Your task to perform on an android device: Show me productivity apps on the Play Store Image 0: 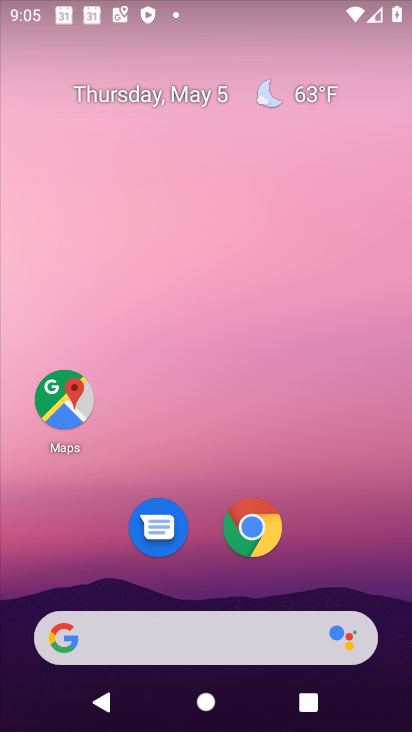
Step 0: drag from (237, 708) to (275, 50)
Your task to perform on an android device: Show me productivity apps on the Play Store Image 1: 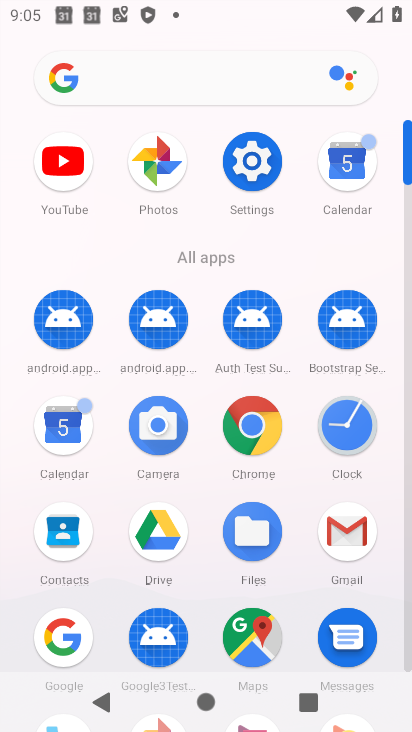
Step 1: drag from (307, 595) to (228, 12)
Your task to perform on an android device: Show me productivity apps on the Play Store Image 2: 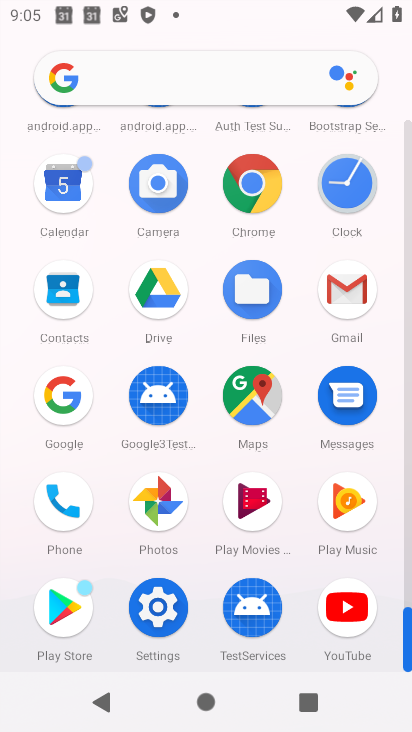
Step 2: click (83, 597)
Your task to perform on an android device: Show me productivity apps on the Play Store Image 3: 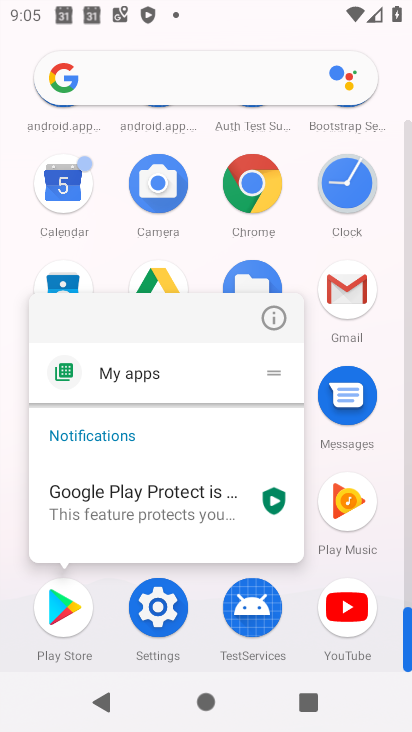
Step 3: click (62, 606)
Your task to perform on an android device: Show me productivity apps on the Play Store Image 4: 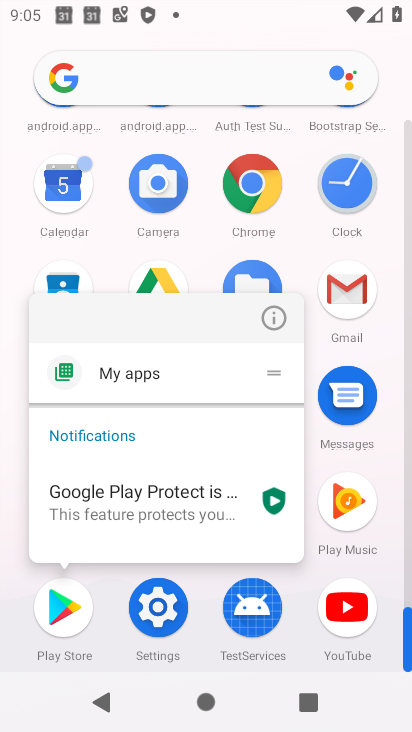
Step 4: click (62, 606)
Your task to perform on an android device: Show me productivity apps on the Play Store Image 5: 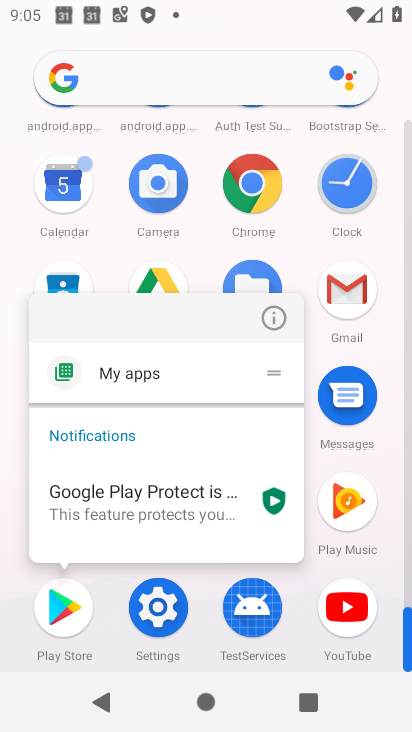
Step 5: click (63, 635)
Your task to perform on an android device: Show me productivity apps on the Play Store Image 6: 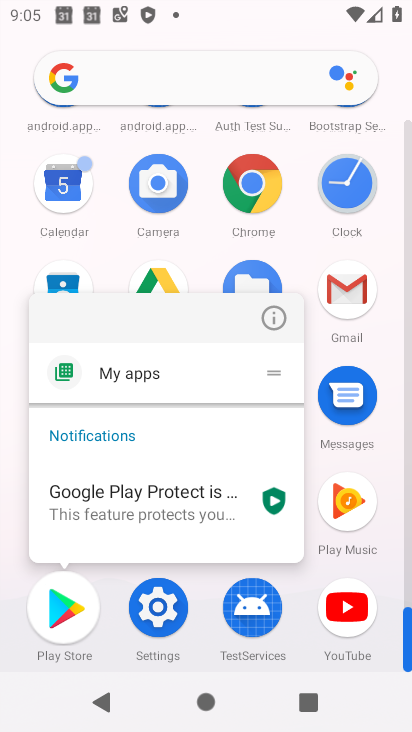
Step 6: click (63, 635)
Your task to perform on an android device: Show me productivity apps on the Play Store Image 7: 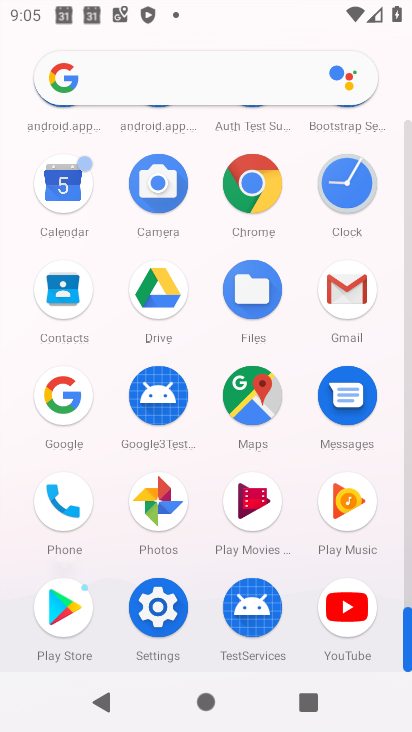
Step 7: click (63, 635)
Your task to perform on an android device: Show me productivity apps on the Play Store Image 8: 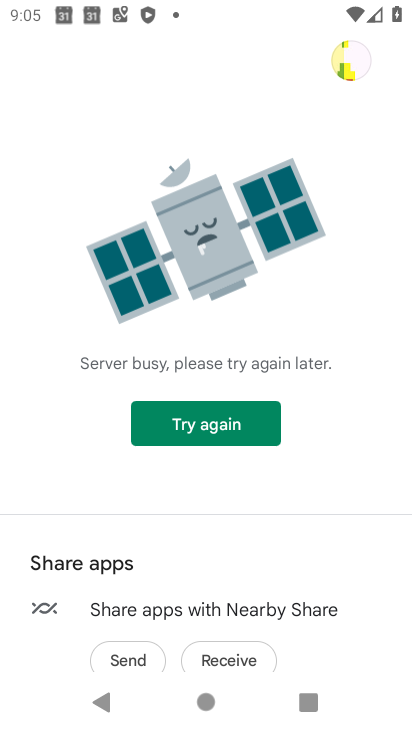
Step 8: task complete